Your task to perform on an android device: check google app version Image 0: 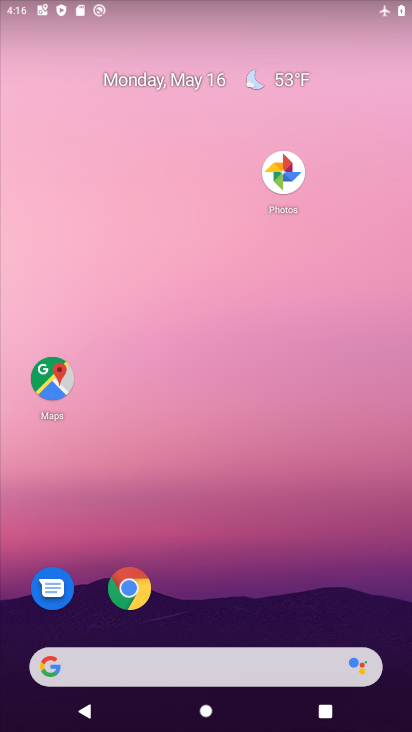
Step 0: click (139, 665)
Your task to perform on an android device: check google app version Image 1: 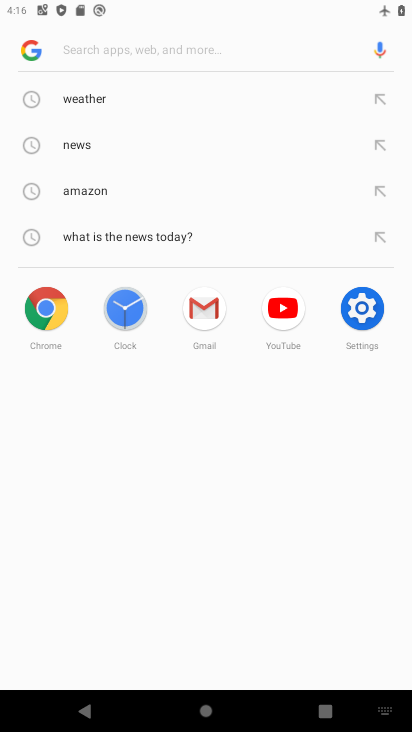
Step 1: click (31, 57)
Your task to perform on an android device: check google app version Image 2: 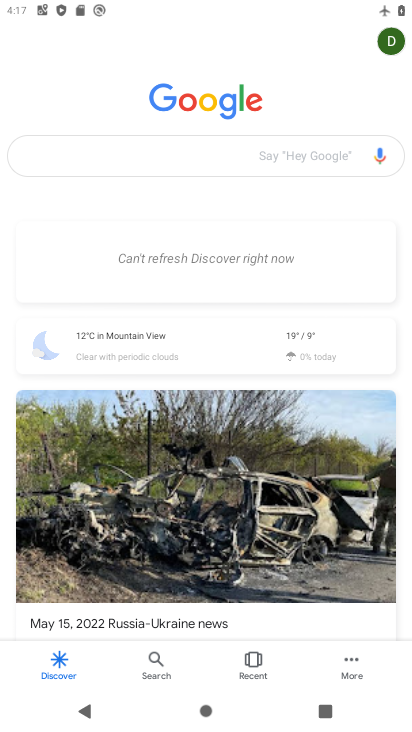
Step 2: click (354, 665)
Your task to perform on an android device: check google app version Image 3: 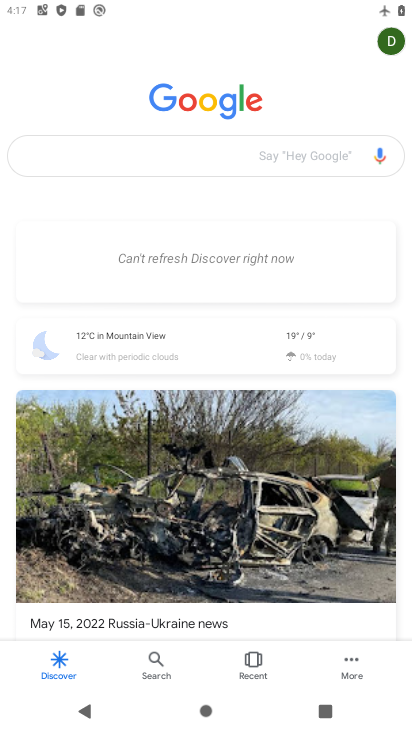
Step 3: click (354, 665)
Your task to perform on an android device: check google app version Image 4: 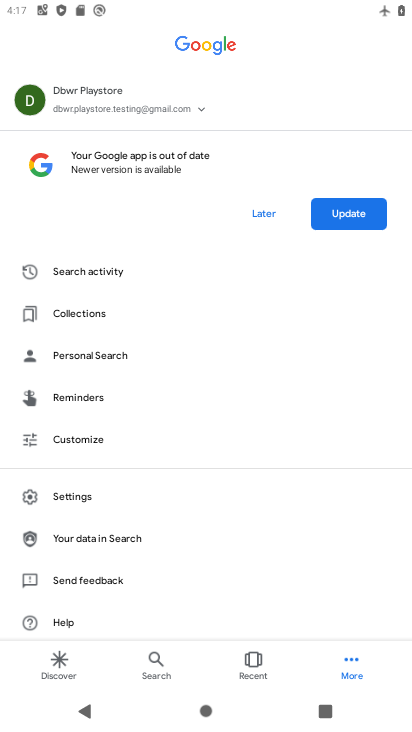
Step 4: click (121, 483)
Your task to perform on an android device: check google app version Image 5: 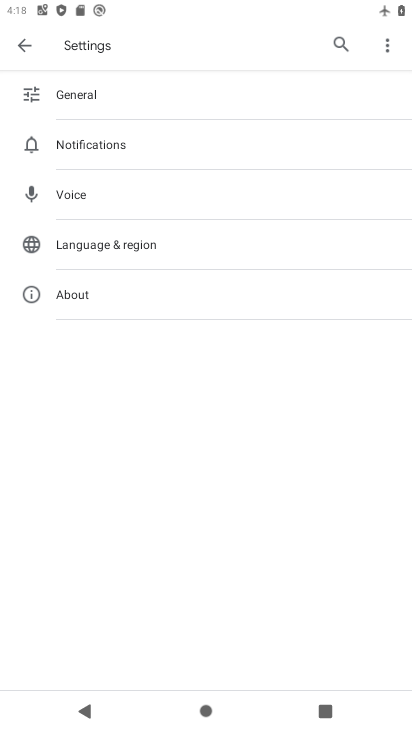
Step 5: click (90, 293)
Your task to perform on an android device: check google app version Image 6: 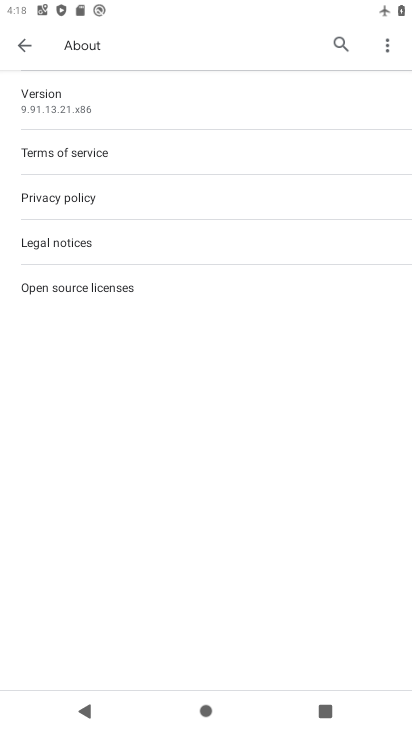
Step 6: task complete